Your task to perform on an android device: Search for "beats solo 3" on newegg, select the first entry, add it to the cart, then select checkout. Image 0: 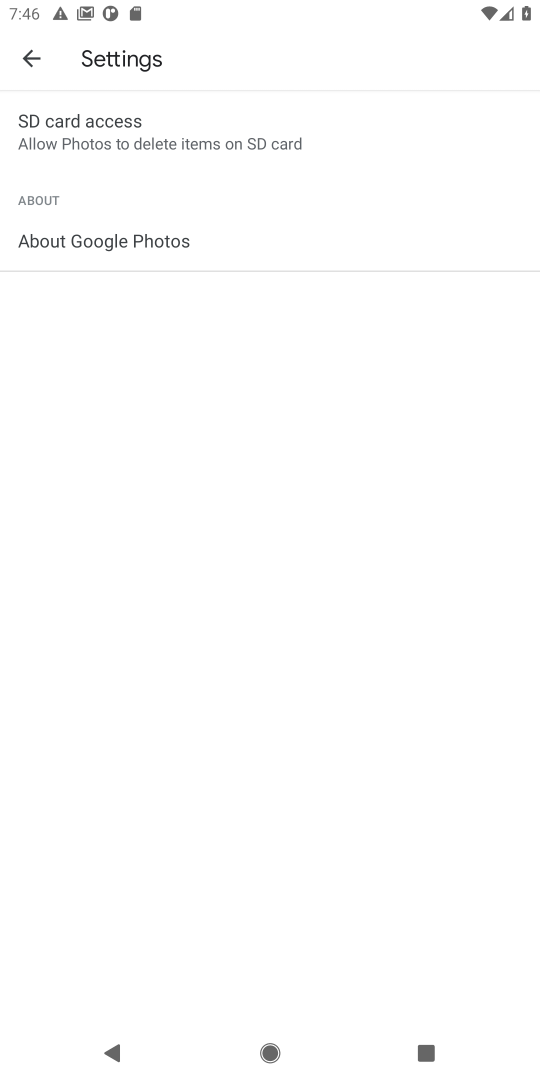
Step 0: press home button
Your task to perform on an android device: Search for "beats solo 3" on newegg, select the first entry, add it to the cart, then select checkout. Image 1: 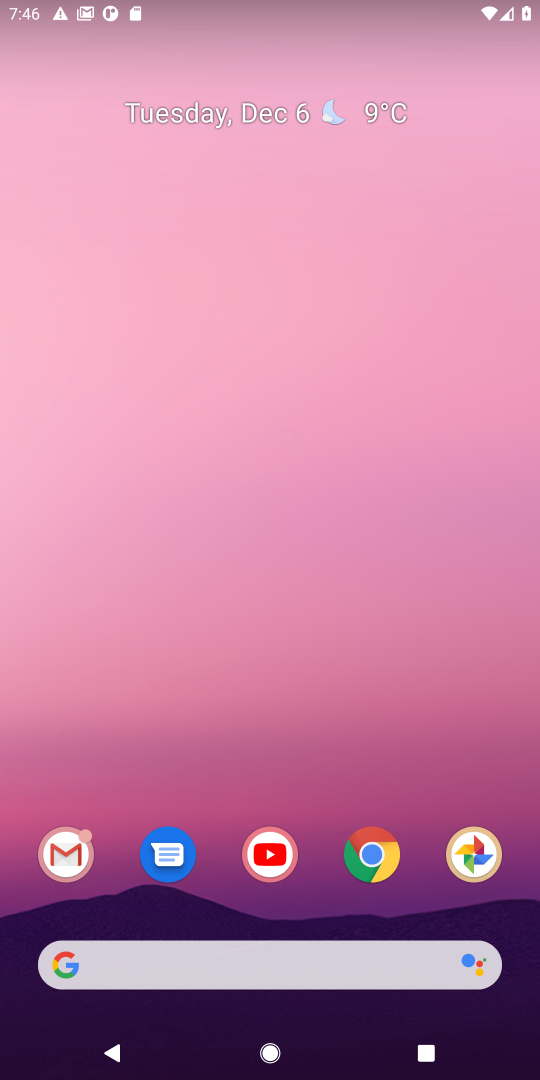
Step 1: click (367, 860)
Your task to perform on an android device: Search for "beats solo 3" on newegg, select the first entry, add it to the cart, then select checkout. Image 2: 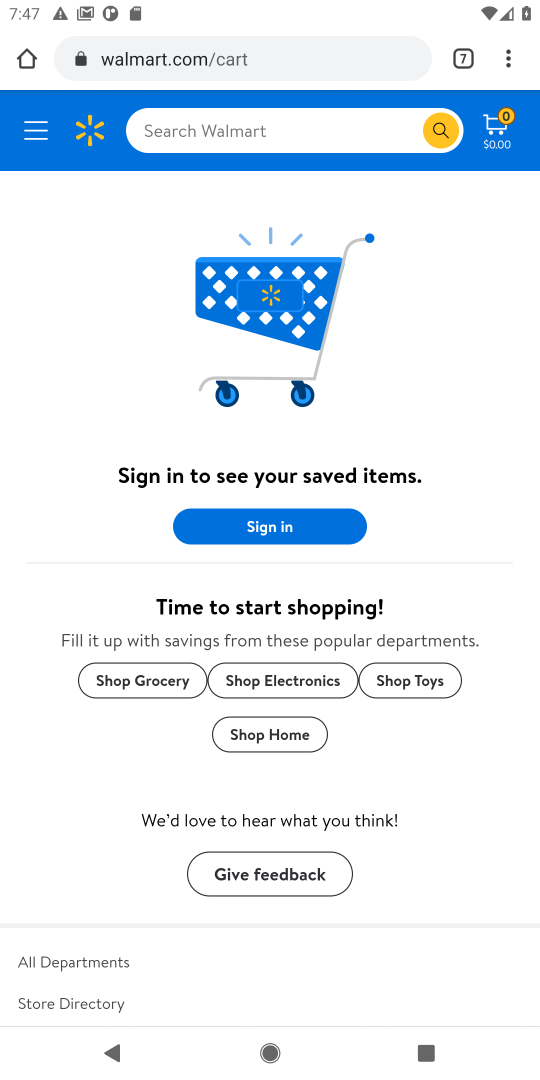
Step 2: click (460, 51)
Your task to perform on an android device: Search for "beats solo 3" on newegg, select the first entry, add it to the cart, then select checkout. Image 3: 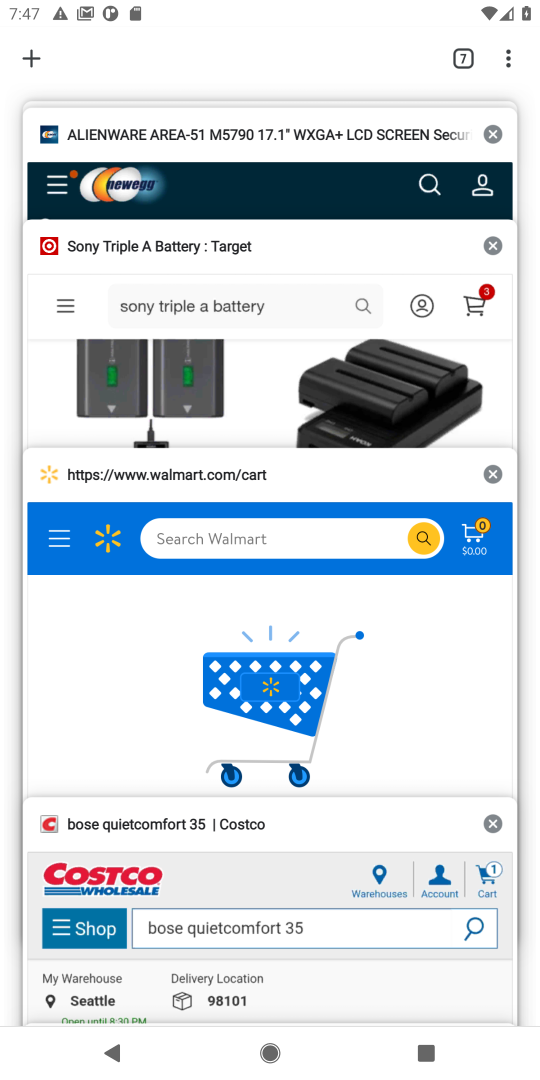
Step 3: click (258, 170)
Your task to perform on an android device: Search for "beats solo 3" on newegg, select the first entry, add it to the cart, then select checkout. Image 4: 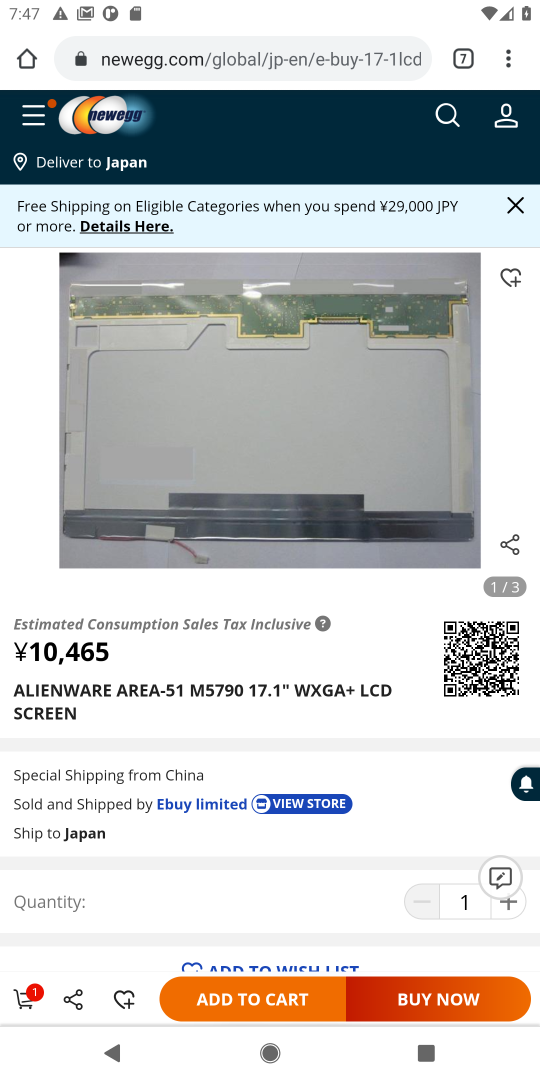
Step 4: click (451, 117)
Your task to perform on an android device: Search for "beats solo 3" on newegg, select the first entry, add it to the cart, then select checkout. Image 5: 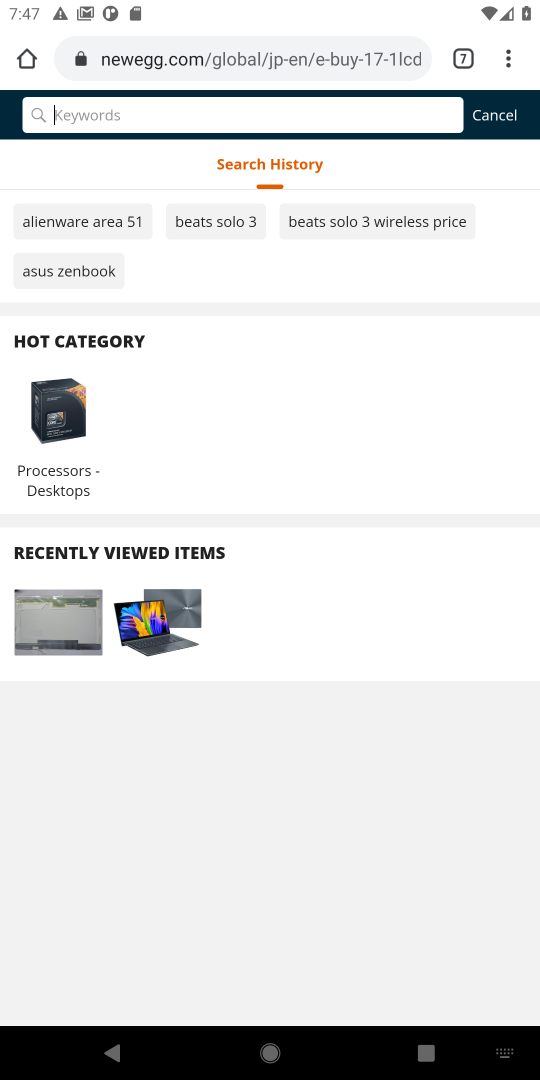
Step 5: type "beats solo 3"
Your task to perform on an android device: Search for "beats solo 3" on newegg, select the first entry, add it to the cart, then select checkout. Image 6: 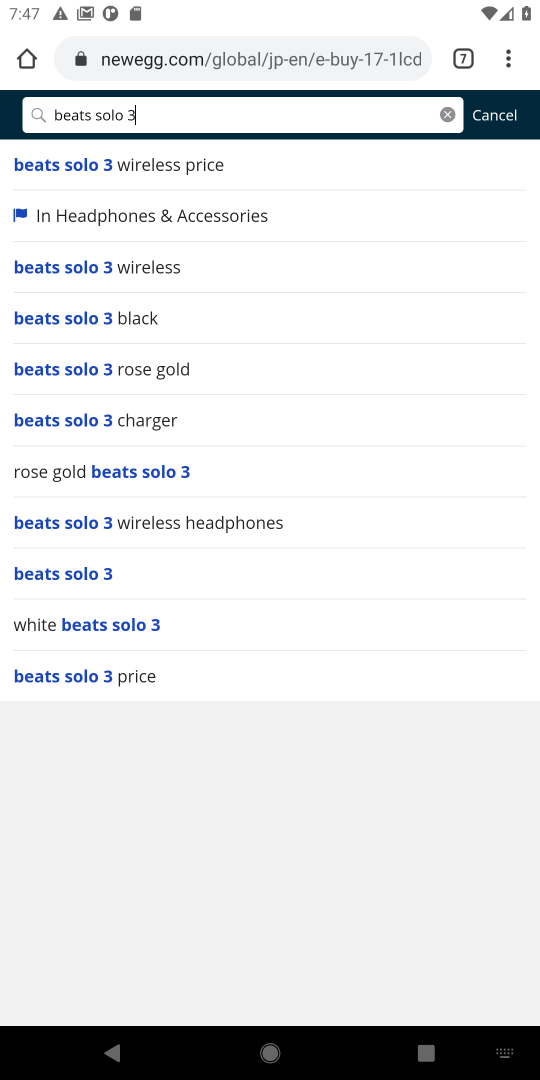
Step 6: click (70, 577)
Your task to perform on an android device: Search for "beats solo 3" on newegg, select the first entry, add it to the cart, then select checkout. Image 7: 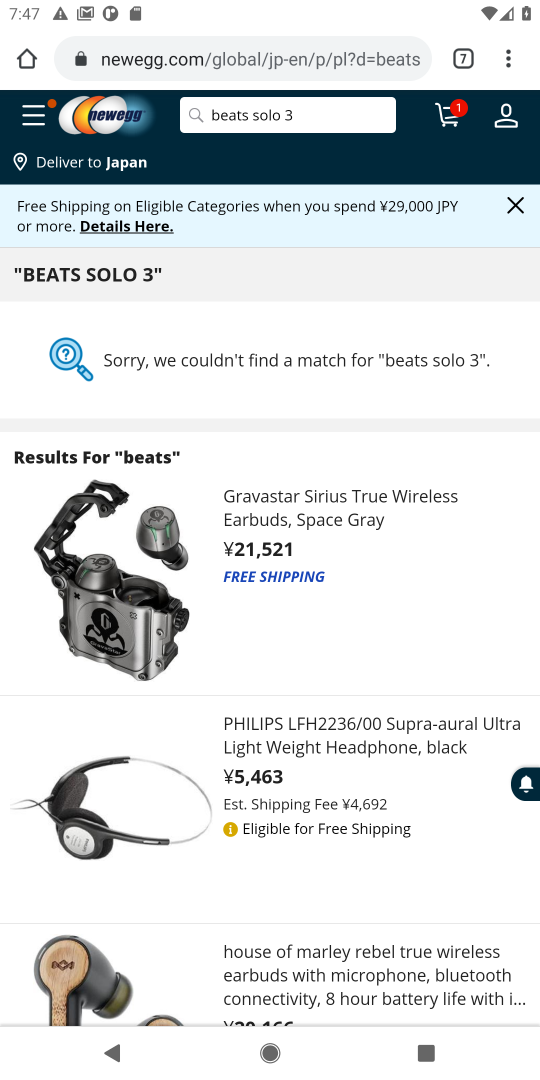
Step 7: task complete